Your task to perform on an android device: Open notification settings Image 0: 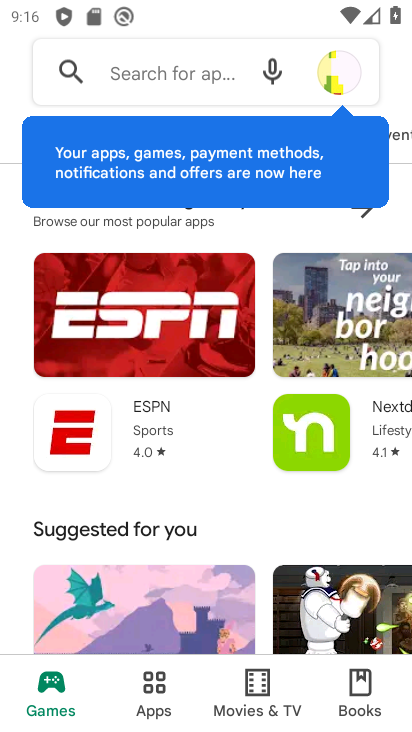
Step 0: press home button
Your task to perform on an android device: Open notification settings Image 1: 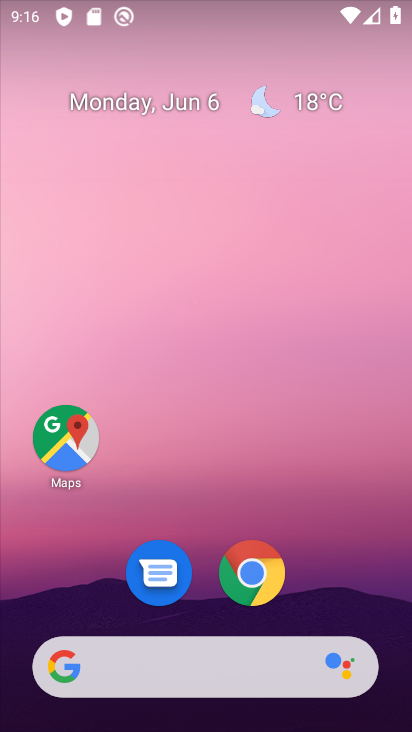
Step 1: drag from (380, 608) to (270, 93)
Your task to perform on an android device: Open notification settings Image 2: 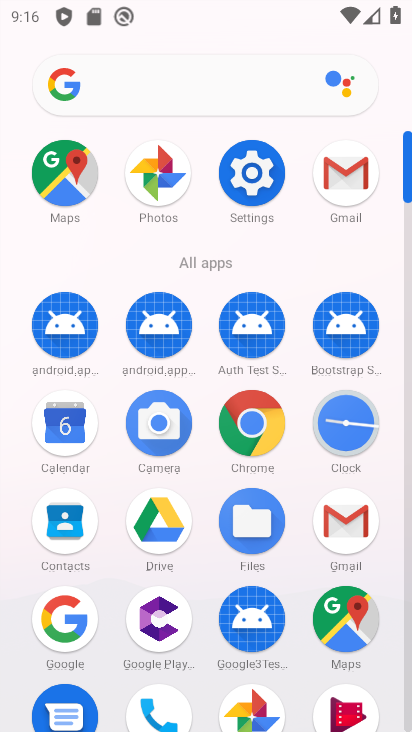
Step 2: click (267, 176)
Your task to perform on an android device: Open notification settings Image 3: 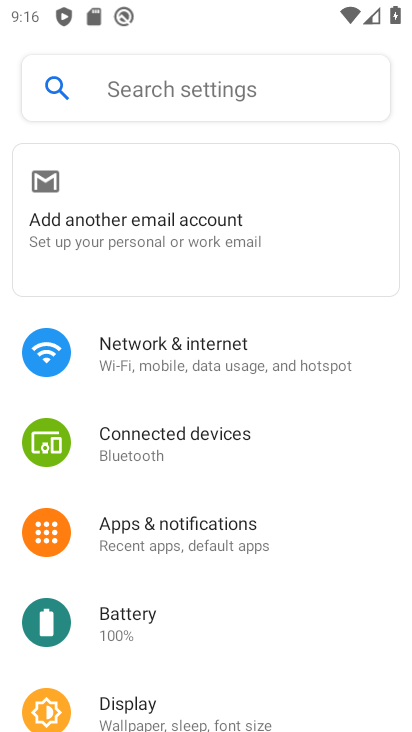
Step 3: click (247, 534)
Your task to perform on an android device: Open notification settings Image 4: 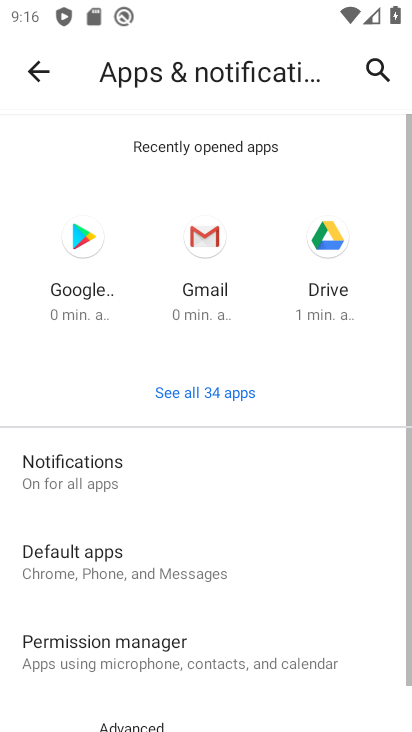
Step 4: click (218, 472)
Your task to perform on an android device: Open notification settings Image 5: 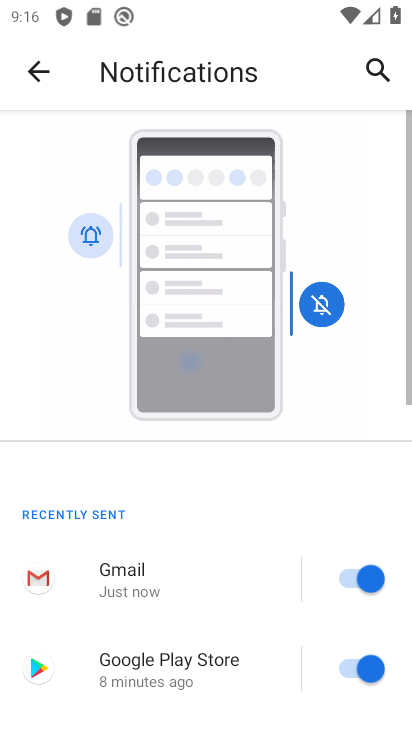
Step 5: click (218, 472)
Your task to perform on an android device: Open notification settings Image 6: 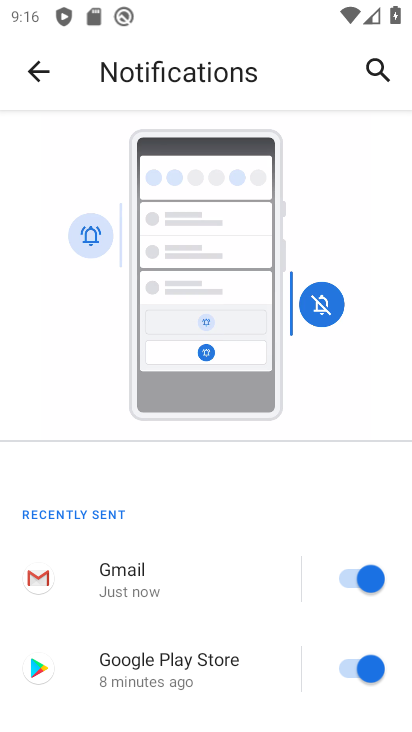
Step 6: task complete